Your task to perform on an android device: open app "Adobe Acrobat Reader: Edit PDF" Image 0: 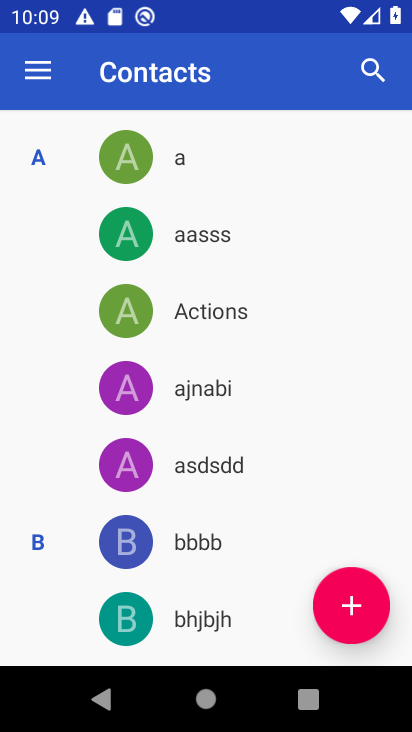
Step 0: press home button
Your task to perform on an android device: open app "Adobe Acrobat Reader: Edit PDF" Image 1: 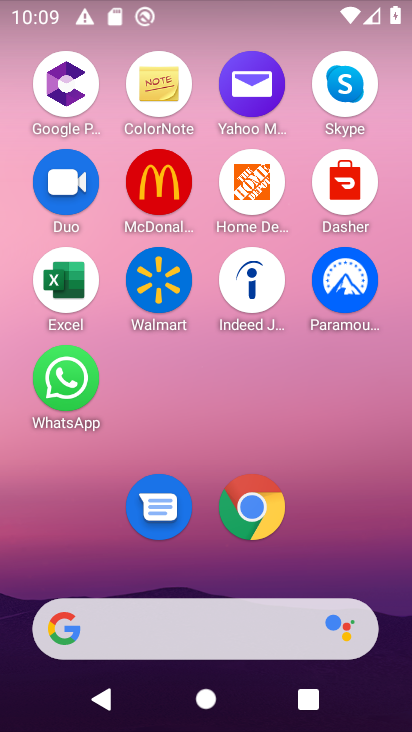
Step 1: drag from (403, 676) to (324, 153)
Your task to perform on an android device: open app "Adobe Acrobat Reader: Edit PDF" Image 2: 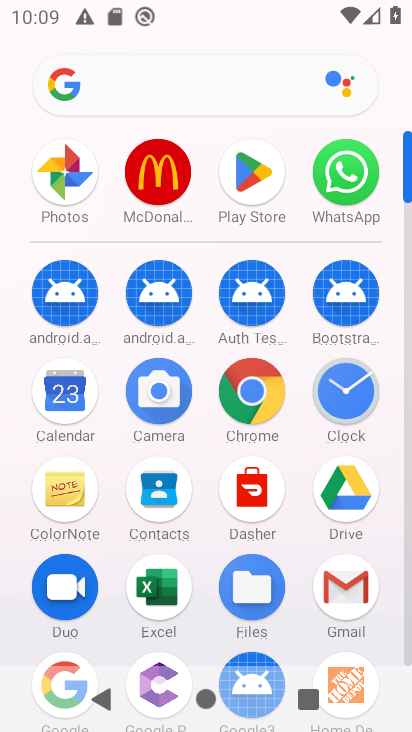
Step 2: click (407, 634)
Your task to perform on an android device: open app "Adobe Acrobat Reader: Edit PDF" Image 3: 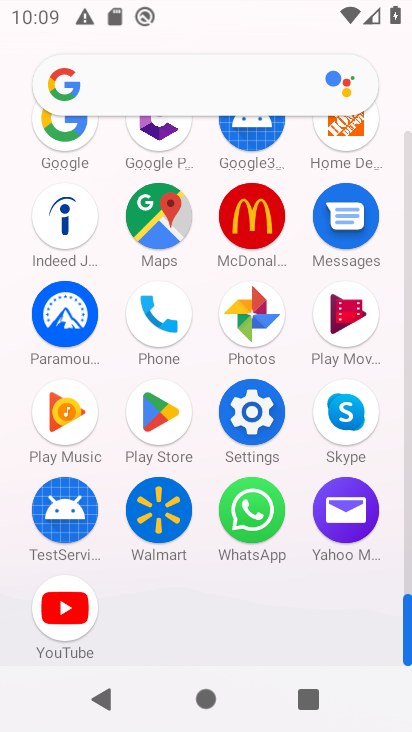
Step 3: click (160, 406)
Your task to perform on an android device: open app "Adobe Acrobat Reader: Edit PDF" Image 4: 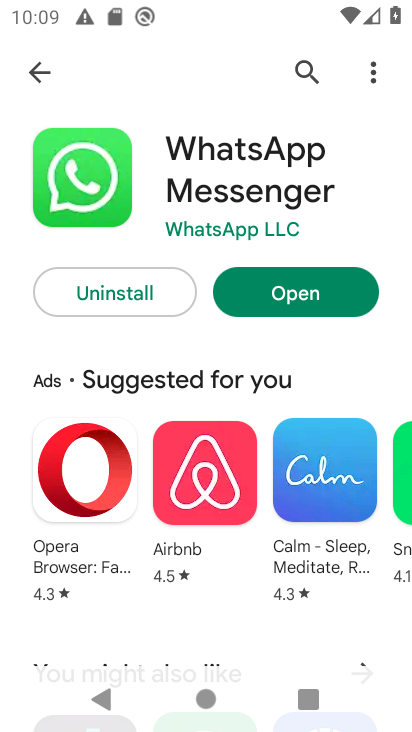
Step 4: click (306, 67)
Your task to perform on an android device: open app "Adobe Acrobat Reader: Edit PDF" Image 5: 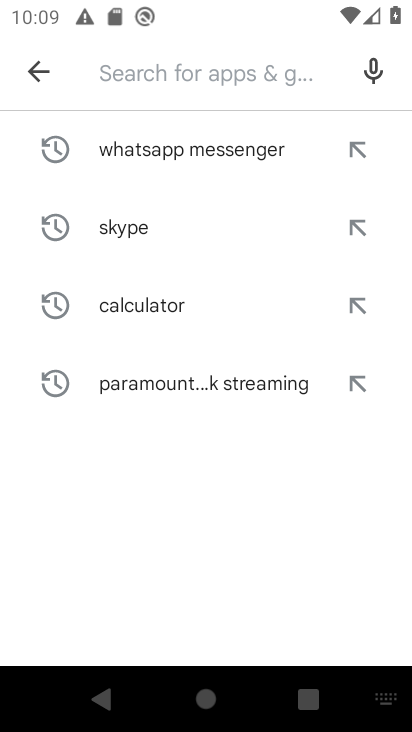
Step 5: type "Adobe Acrobat Reader: Edit PDF"
Your task to perform on an android device: open app "Adobe Acrobat Reader: Edit PDF" Image 6: 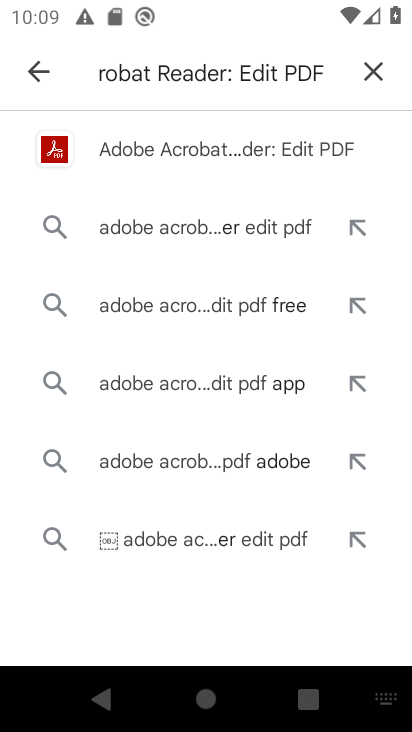
Step 6: click (179, 154)
Your task to perform on an android device: open app "Adobe Acrobat Reader: Edit PDF" Image 7: 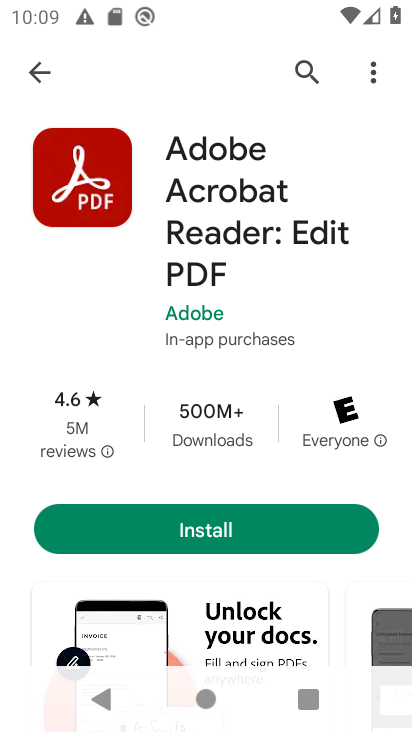
Step 7: task complete